Your task to perform on an android device: uninstall "Life360: Find Family & Friends" Image 0: 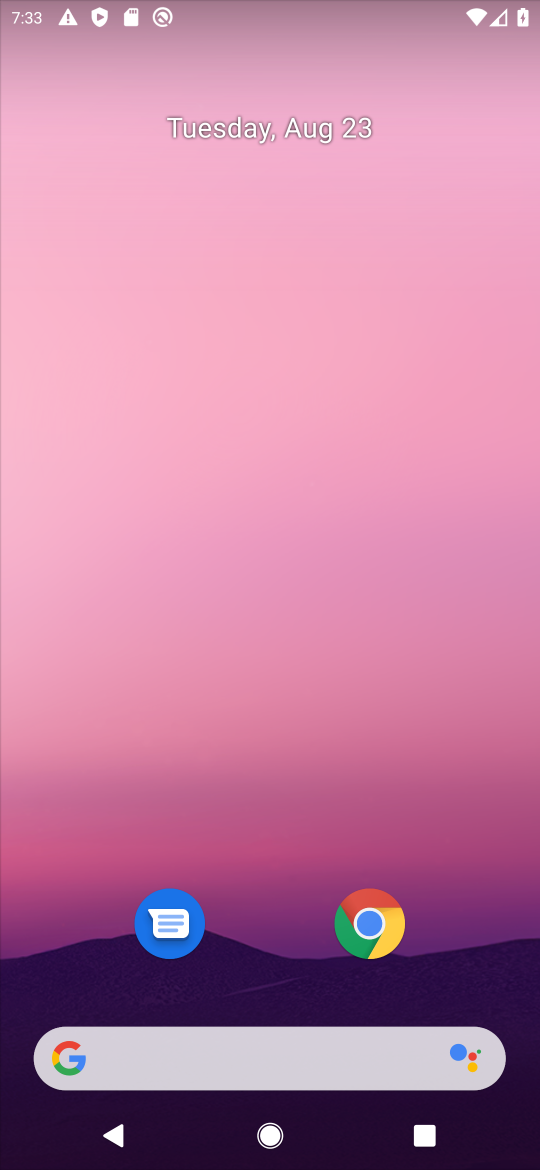
Step 0: drag from (210, 1046) to (425, 28)
Your task to perform on an android device: uninstall "Life360: Find Family & Friends" Image 1: 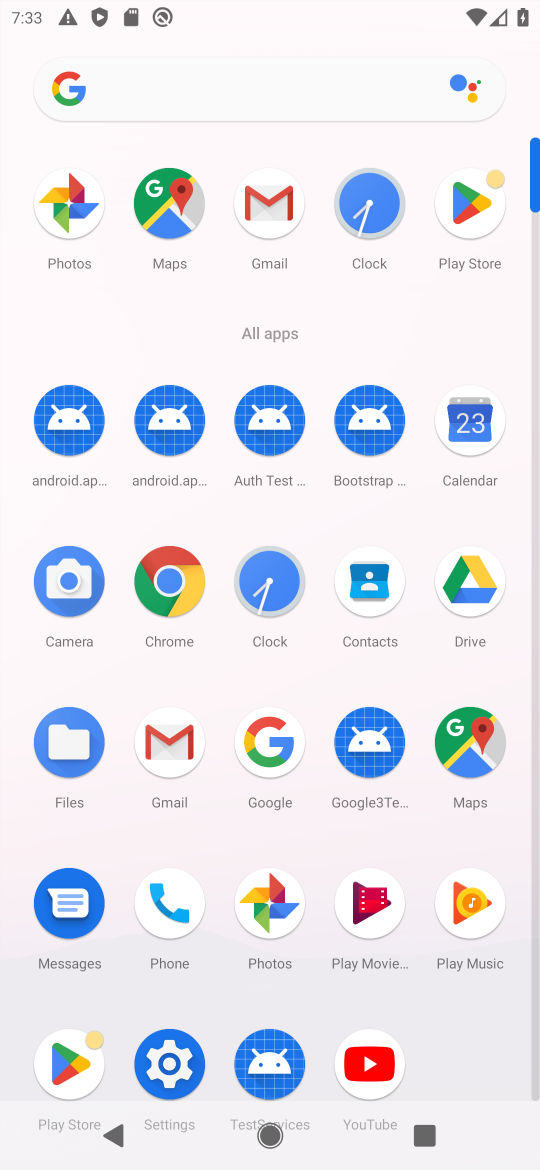
Step 1: drag from (64, 1072) to (258, 695)
Your task to perform on an android device: uninstall "Life360: Find Family & Friends" Image 2: 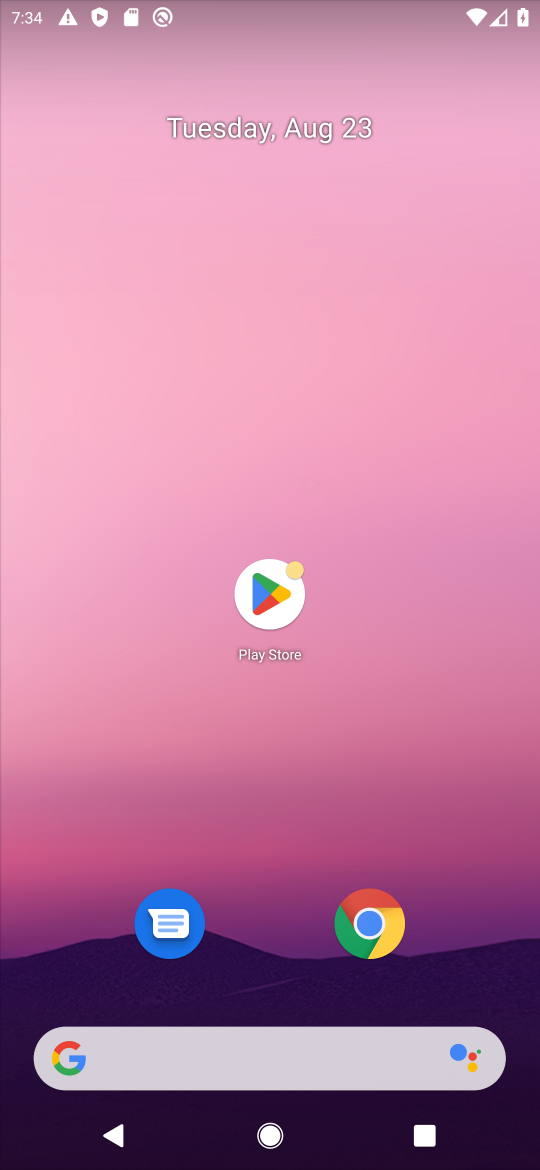
Step 2: click (270, 591)
Your task to perform on an android device: uninstall "Life360: Find Family & Friends" Image 3: 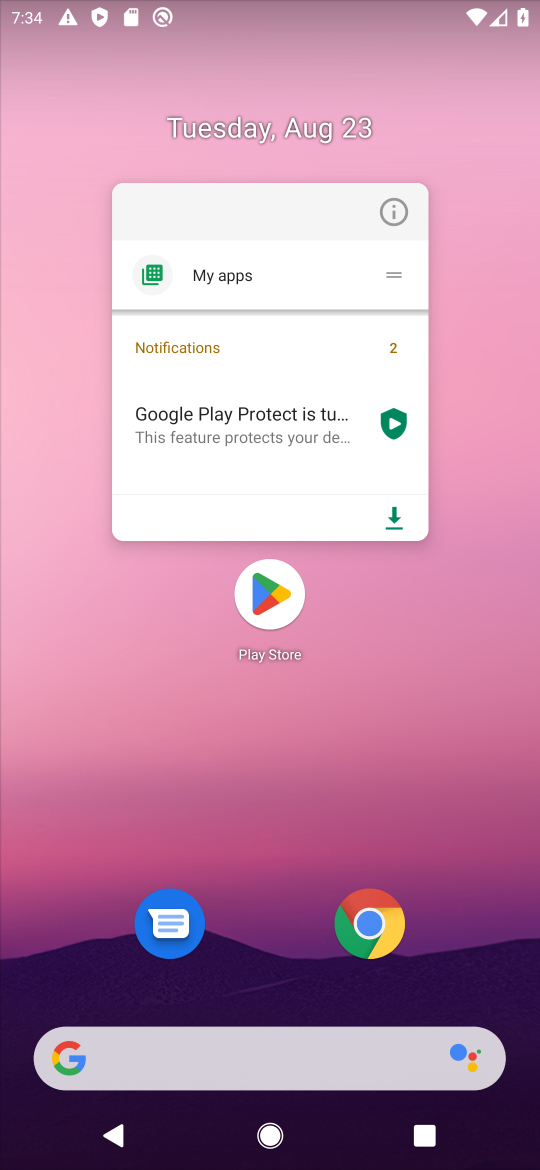
Step 3: click (255, 588)
Your task to perform on an android device: uninstall "Life360: Find Family & Friends" Image 4: 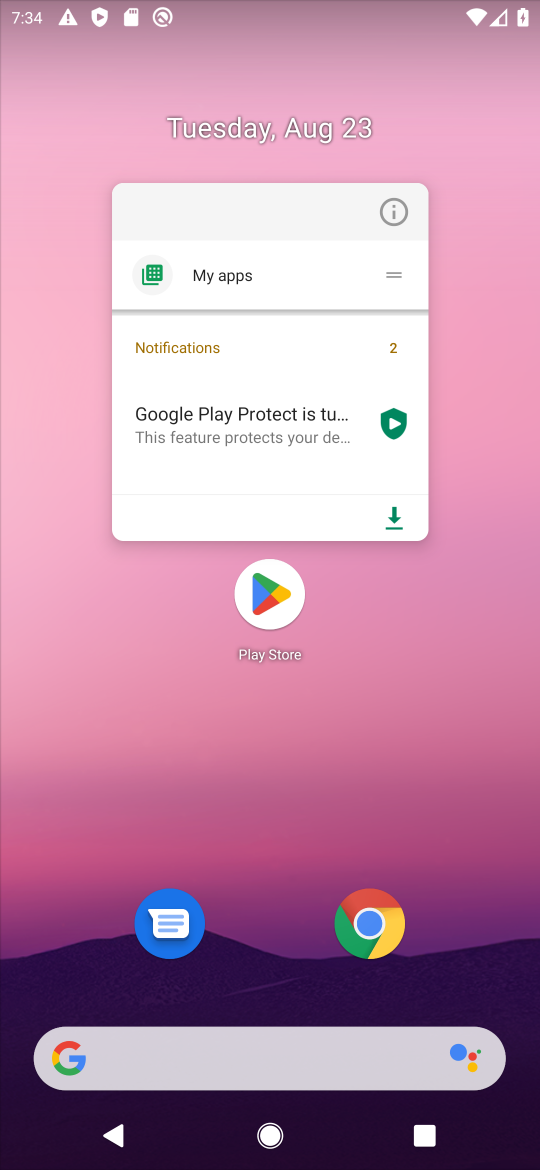
Step 4: click (262, 588)
Your task to perform on an android device: uninstall "Life360: Find Family & Friends" Image 5: 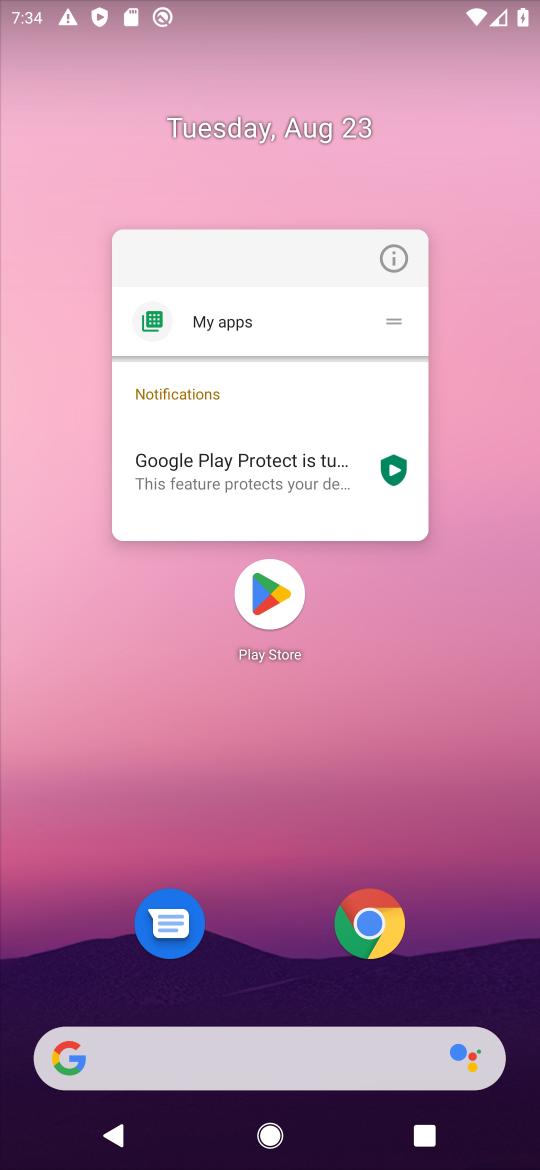
Step 5: click (267, 595)
Your task to perform on an android device: uninstall "Life360: Find Family & Friends" Image 6: 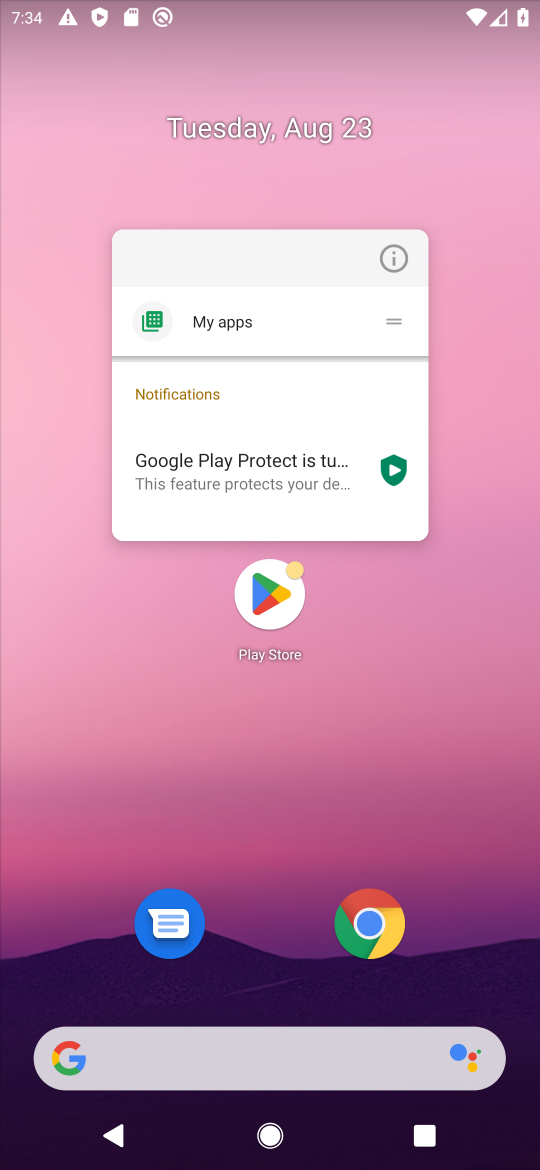
Step 6: click (267, 603)
Your task to perform on an android device: uninstall "Life360: Find Family & Friends" Image 7: 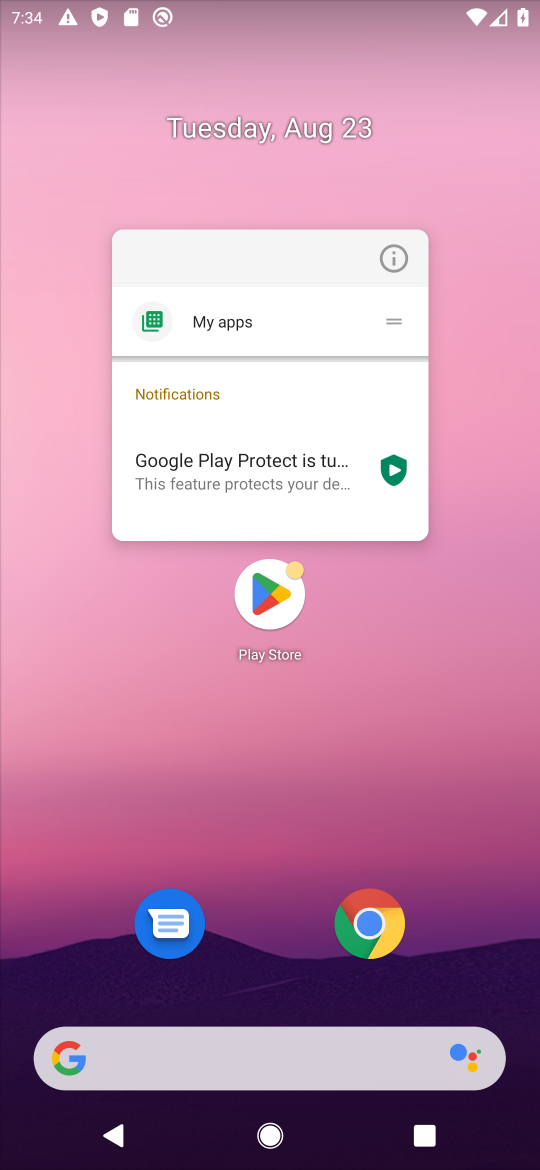
Step 7: click (267, 603)
Your task to perform on an android device: uninstall "Life360: Find Family & Friends" Image 8: 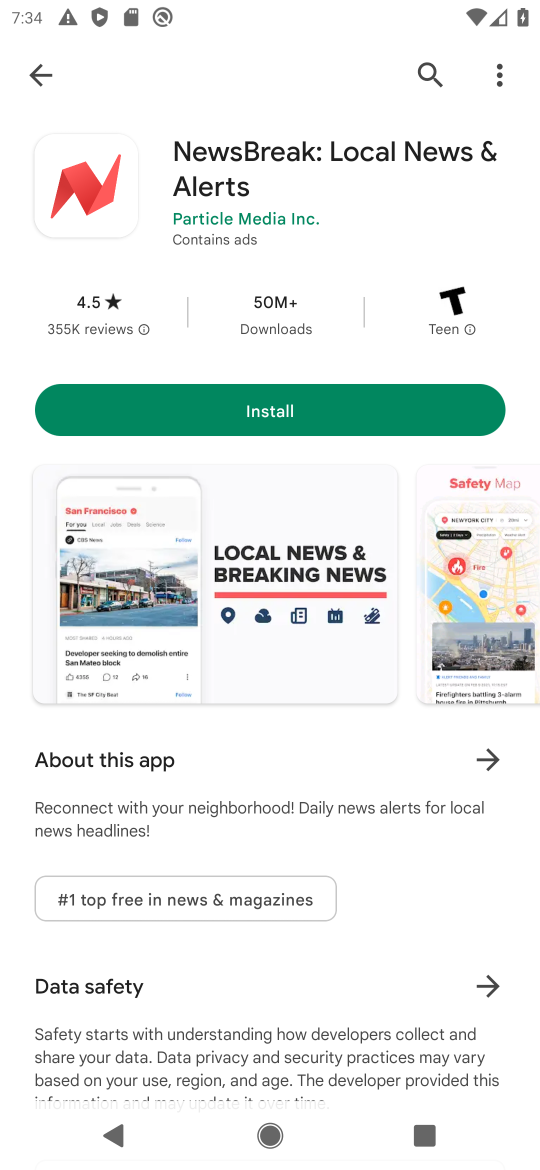
Step 8: click (425, 74)
Your task to perform on an android device: uninstall "Life360: Find Family & Friends" Image 9: 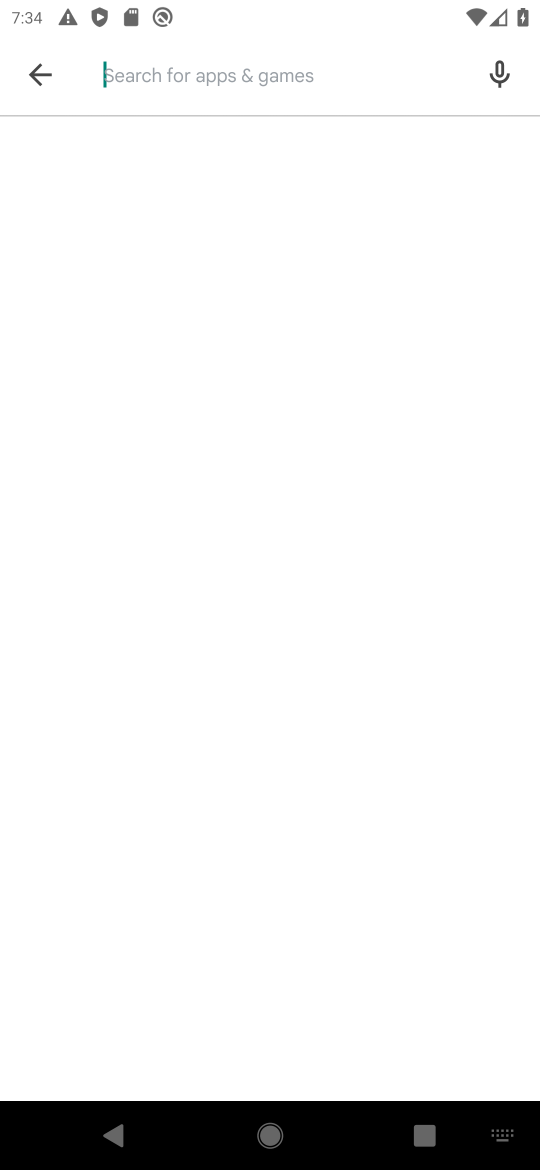
Step 9: type "Life360: Find Family & Friends"
Your task to perform on an android device: uninstall "Life360: Find Family & Friends" Image 10: 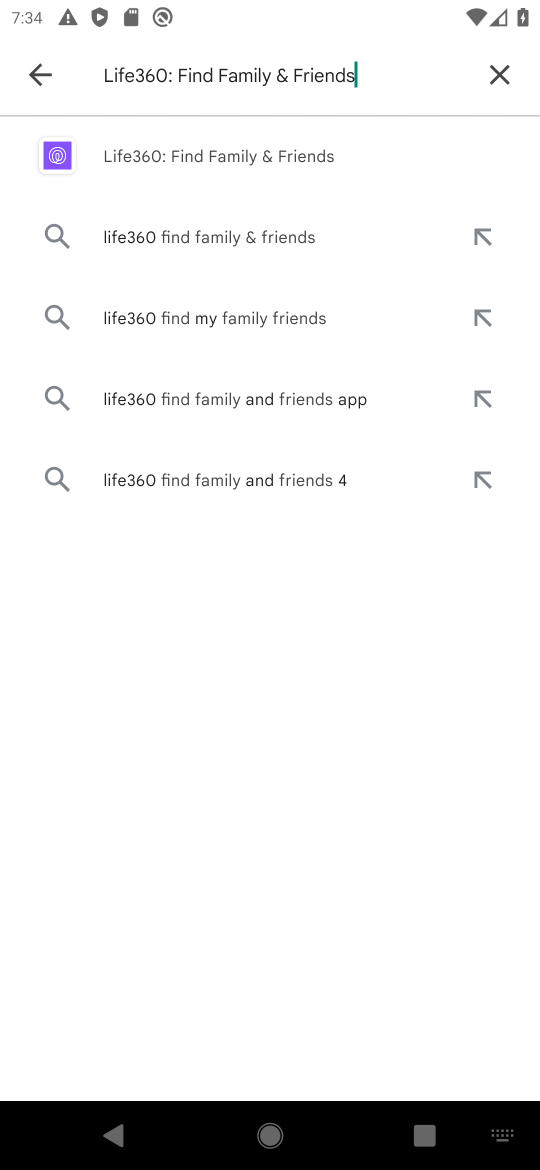
Step 10: click (228, 161)
Your task to perform on an android device: uninstall "Life360: Find Family & Friends" Image 11: 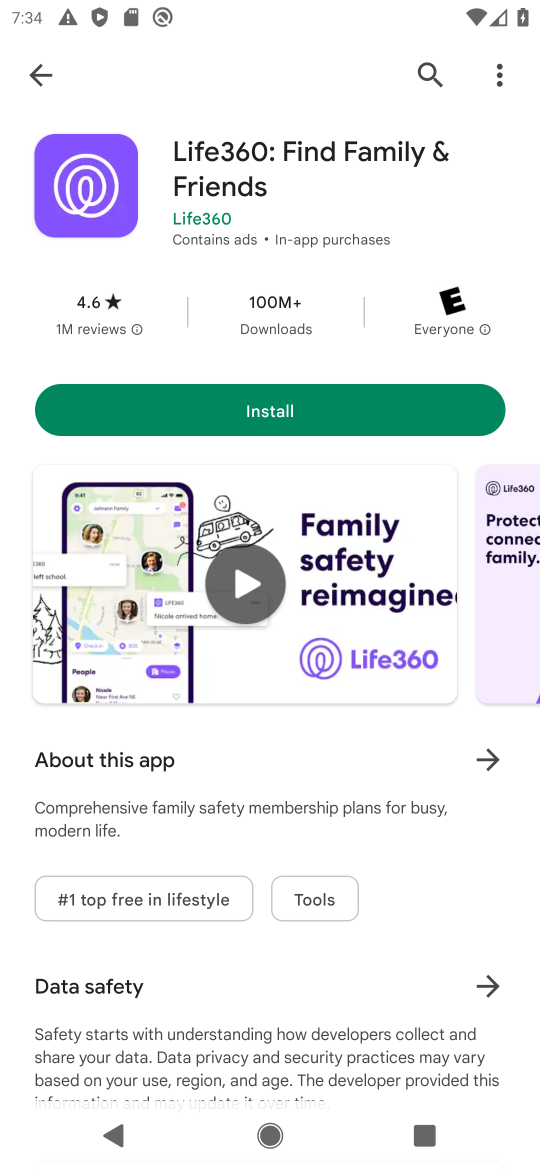
Step 11: task complete